Your task to perform on an android device: toggle improve location accuracy Image 0: 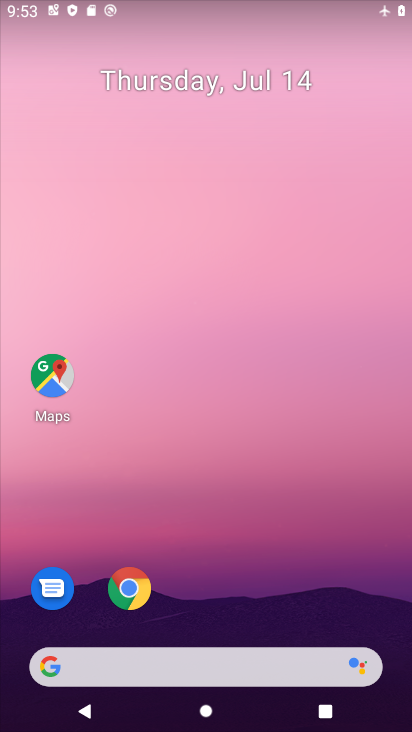
Step 0: drag from (398, 637) to (234, 81)
Your task to perform on an android device: toggle improve location accuracy Image 1: 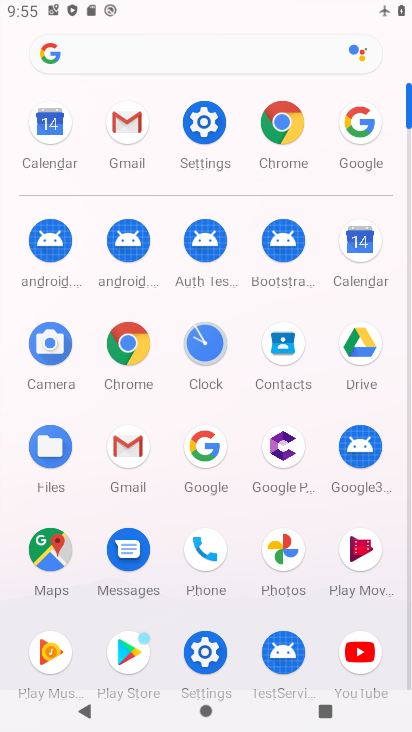
Step 1: click (198, 658)
Your task to perform on an android device: toggle improve location accuracy Image 2: 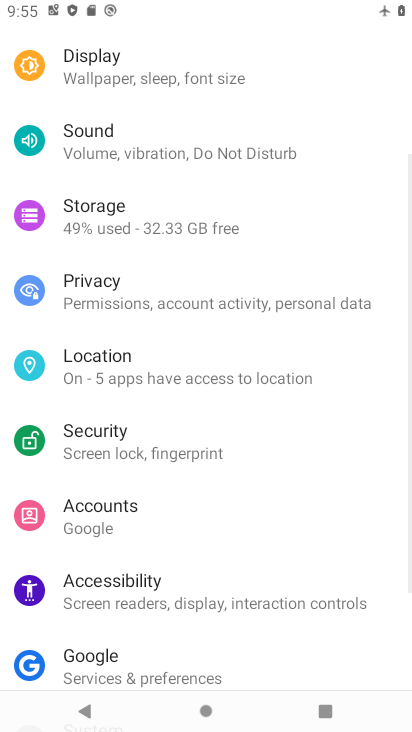
Step 2: click (95, 386)
Your task to perform on an android device: toggle improve location accuracy Image 3: 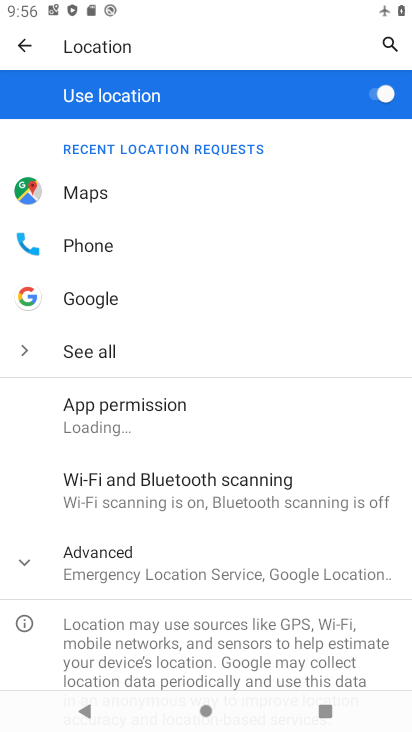
Step 3: click (119, 563)
Your task to perform on an android device: toggle improve location accuracy Image 4: 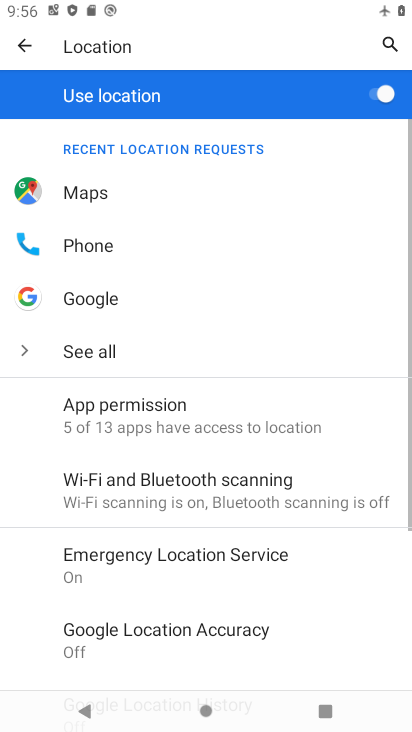
Step 4: click (185, 644)
Your task to perform on an android device: toggle improve location accuracy Image 5: 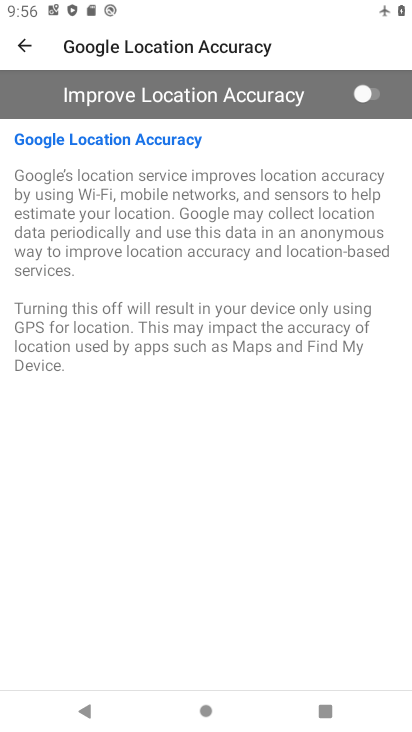
Step 5: click (352, 88)
Your task to perform on an android device: toggle improve location accuracy Image 6: 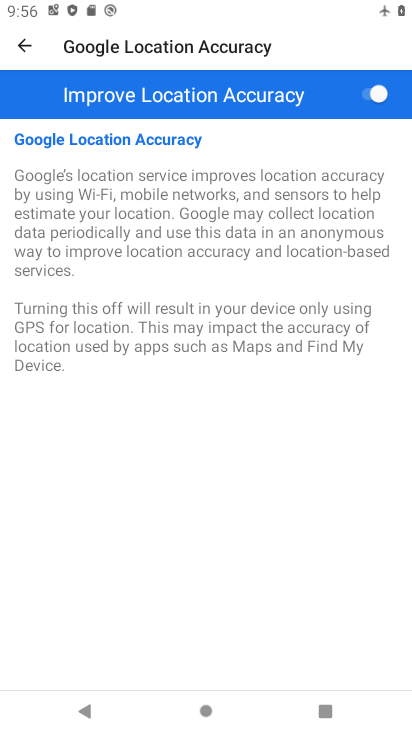
Step 6: task complete